Your task to perform on an android device: turn off smart reply in the gmail app Image 0: 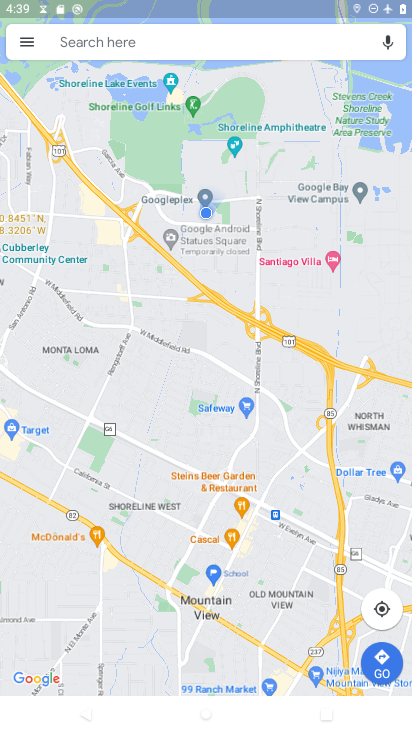
Step 0: press home button
Your task to perform on an android device: turn off smart reply in the gmail app Image 1: 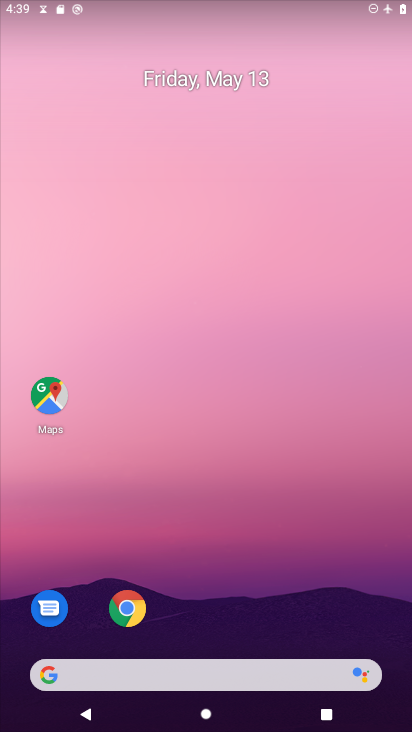
Step 1: drag from (321, 660) to (386, 23)
Your task to perform on an android device: turn off smart reply in the gmail app Image 2: 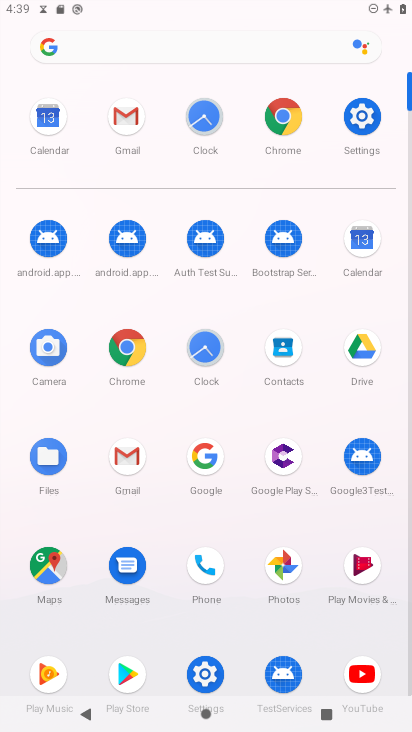
Step 2: click (124, 450)
Your task to perform on an android device: turn off smart reply in the gmail app Image 3: 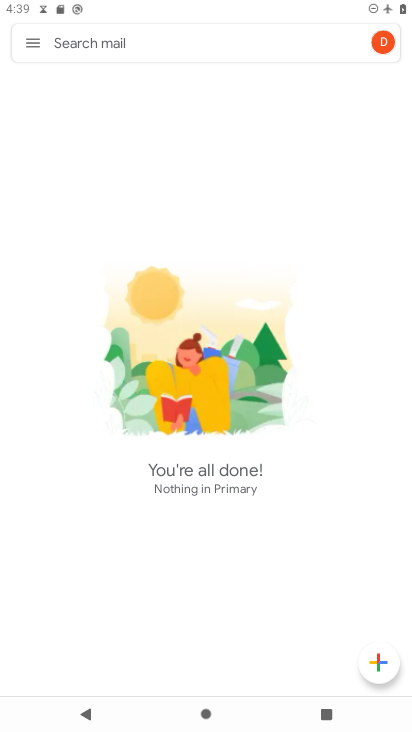
Step 3: click (24, 41)
Your task to perform on an android device: turn off smart reply in the gmail app Image 4: 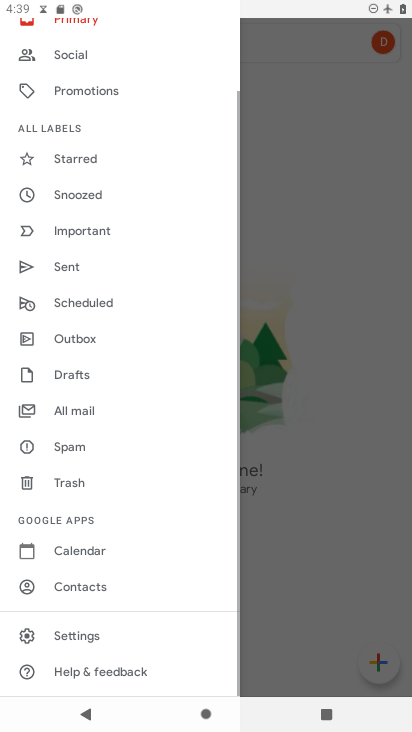
Step 4: drag from (98, 540) to (215, 0)
Your task to perform on an android device: turn off smart reply in the gmail app Image 5: 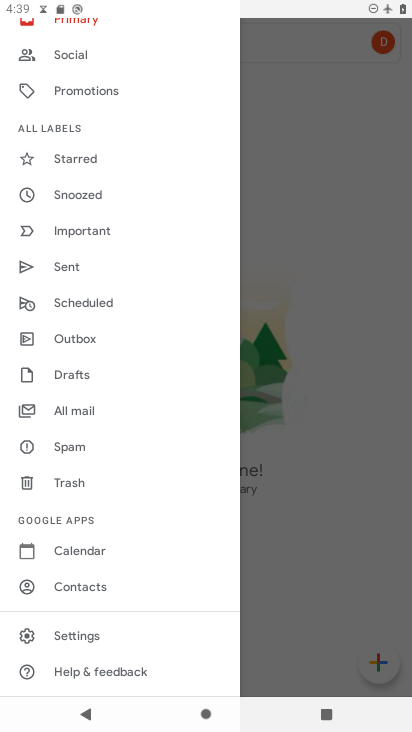
Step 5: click (95, 633)
Your task to perform on an android device: turn off smart reply in the gmail app Image 6: 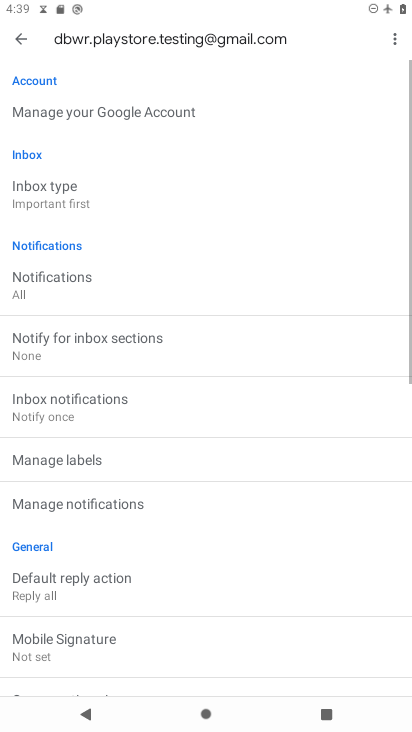
Step 6: drag from (165, 652) to (273, 78)
Your task to perform on an android device: turn off smart reply in the gmail app Image 7: 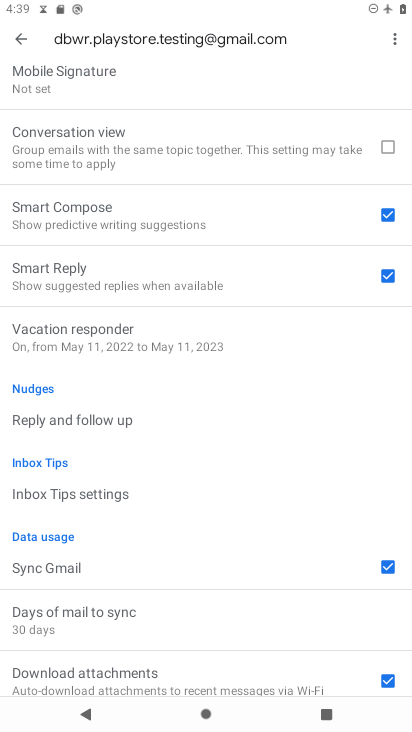
Step 7: click (388, 275)
Your task to perform on an android device: turn off smart reply in the gmail app Image 8: 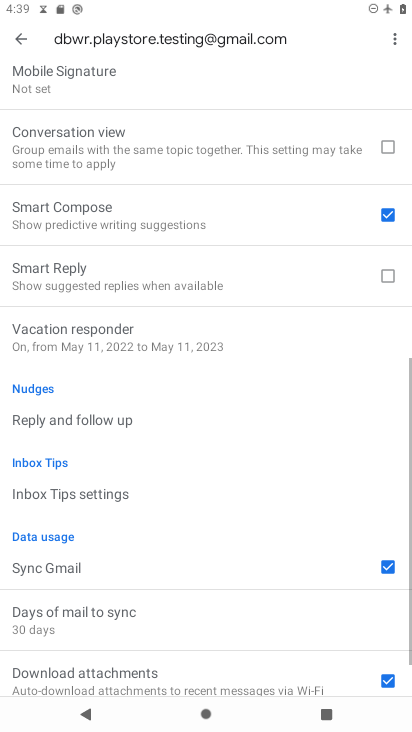
Step 8: task complete